Your task to perform on an android device: Go to sound settings Image 0: 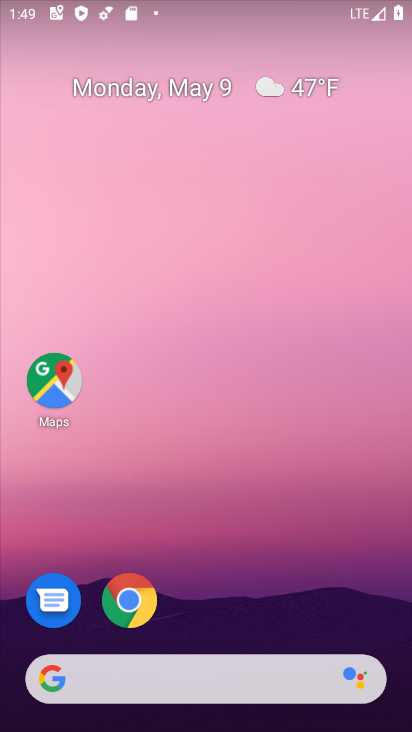
Step 0: drag from (215, 612) to (236, 74)
Your task to perform on an android device: Go to sound settings Image 1: 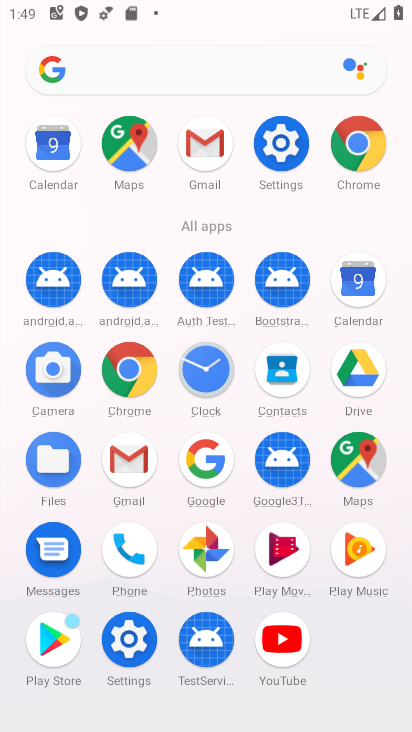
Step 1: click (132, 636)
Your task to perform on an android device: Go to sound settings Image 2: 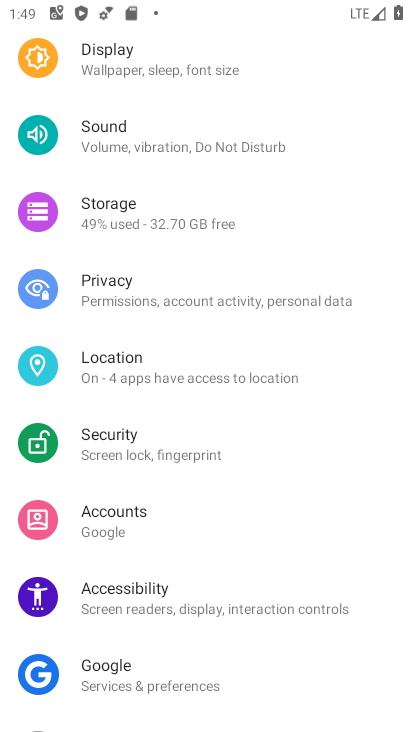
Step 2: click (137, 135)
Your task to perform on an android device: Go to sound settings Image 3: 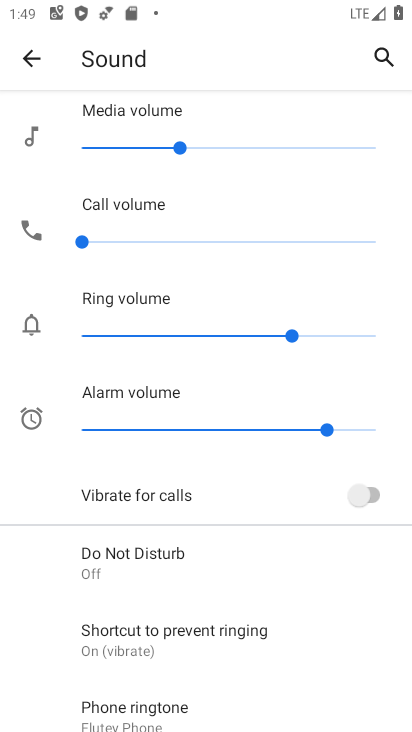
Step 3: drag from (186, 578) to (213, 320)
Your task to perform on an android device: Go to sound settings Image 4: 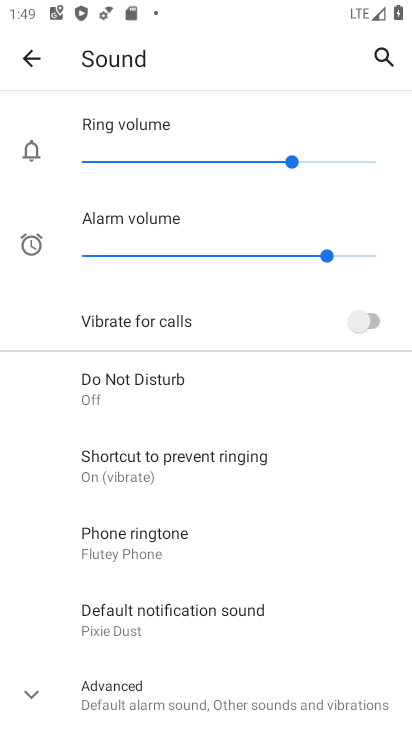
Step 4: drag from (234, 645) to (262, 336)
Your task to perform on an android device: Go to sound settings Image 5: 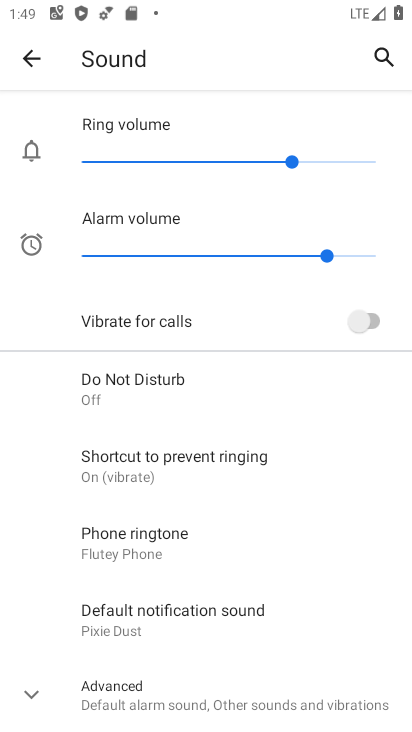
Step 5: click (45, 698)
Your task to perform on an android device: Go to sound settings Image 6: 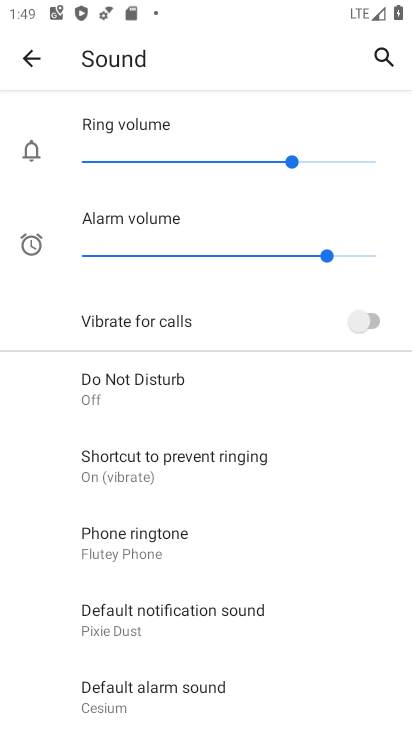
Step 6: task complete